Your task to perform on an android device: turn on translation in the chrome app Image 0: 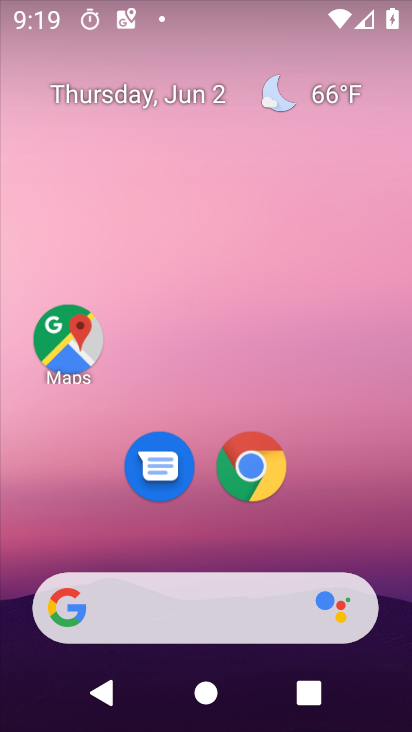
Step 0: click (226, 469)
Your task to perform on an android device: turn on translation in the chrome app Image 1: 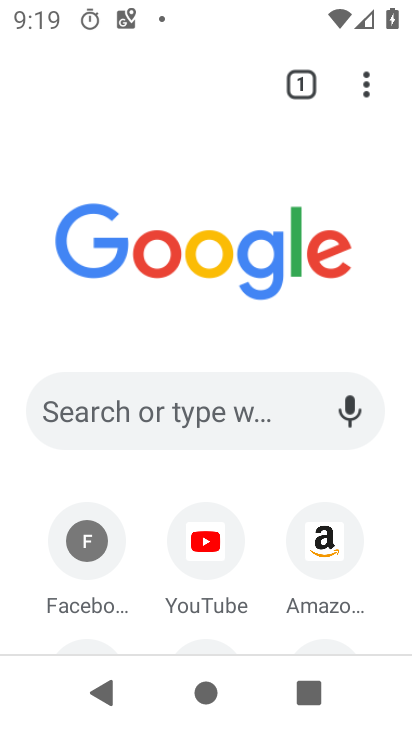
Step 1: click (368, 91)
Your task to perform on an android device: turn on translation in the chrome app Image 2: 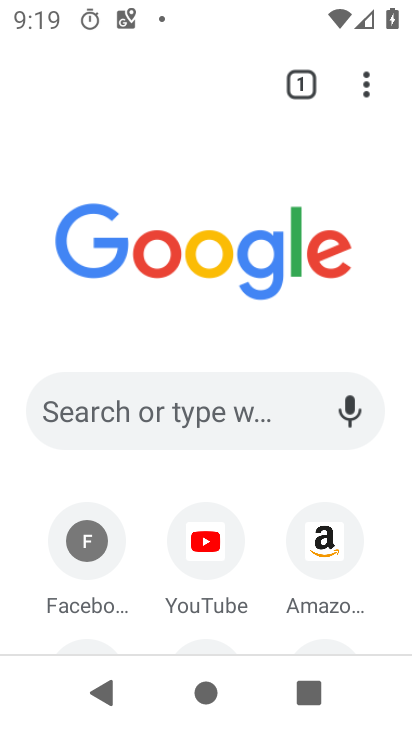
Step 2: click (373, 83)
Your task to perform on an android device: turn on translation in the chrome app Image 3: 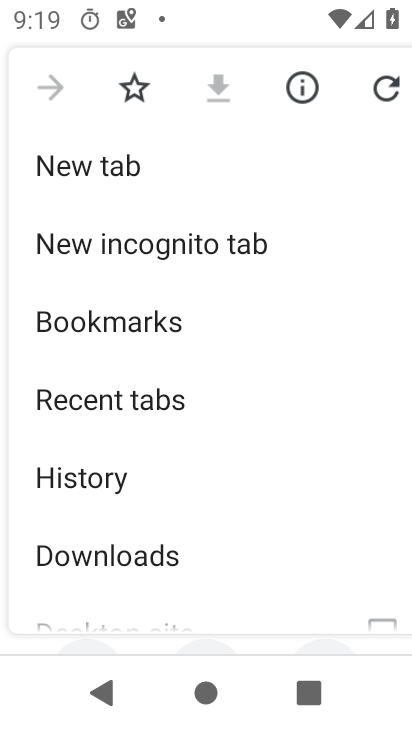
Step 3: drag from (10, 507) to (244, 137)
Your task to perform on an android device: turn on translation in the chrome app Image 4: 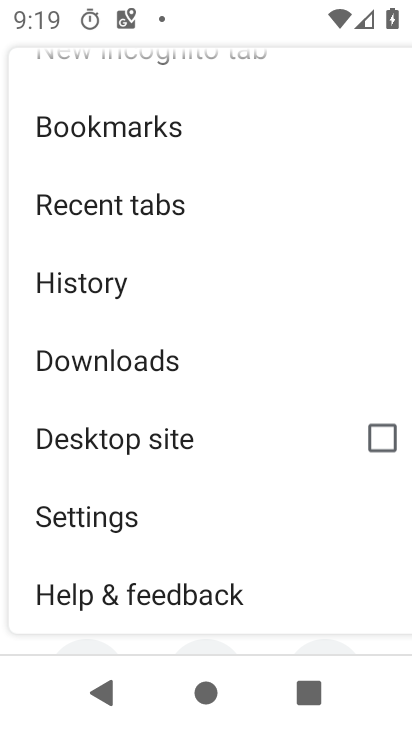
Step 4: click (72, 516)
Your task to perform on an android device: turn on translation in the chrome app Image 5: 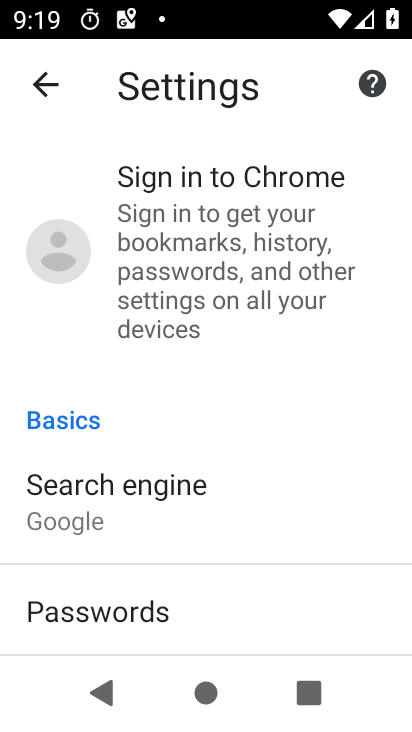
Step 5: drag from (13, 592) to (351, 144)
Your task to perform on an android device: turn on translation in the chrome app Image 6: 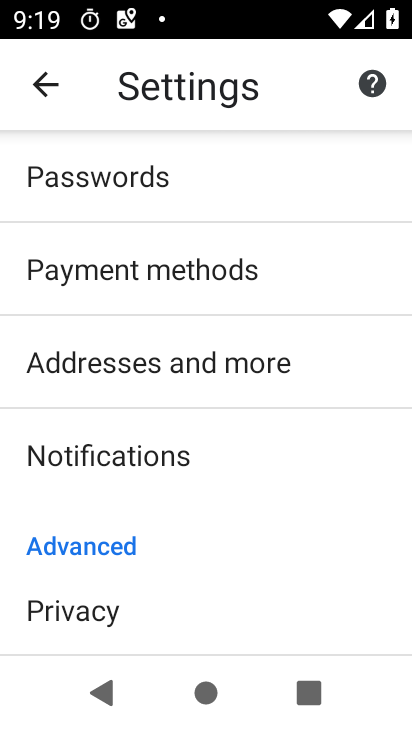
Step 6: drag from (20, 564) to (204, 239)
Your task to perform on an android device: turn on translation in the chrome app Image 7: 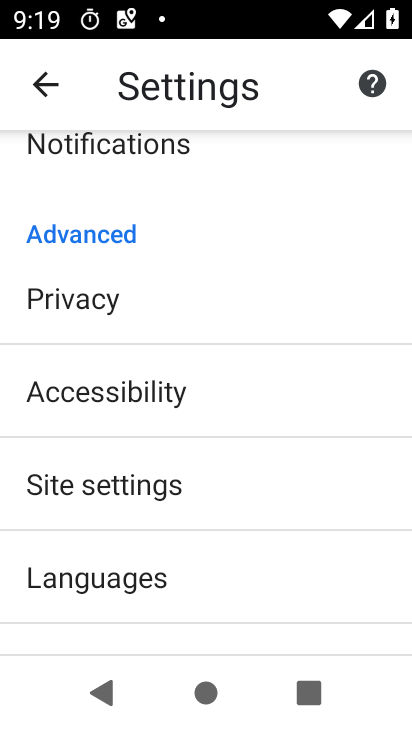
Step 7: click (103, 477)
Your task to perform on an android device: turn on translation in the chrome app Image 8: 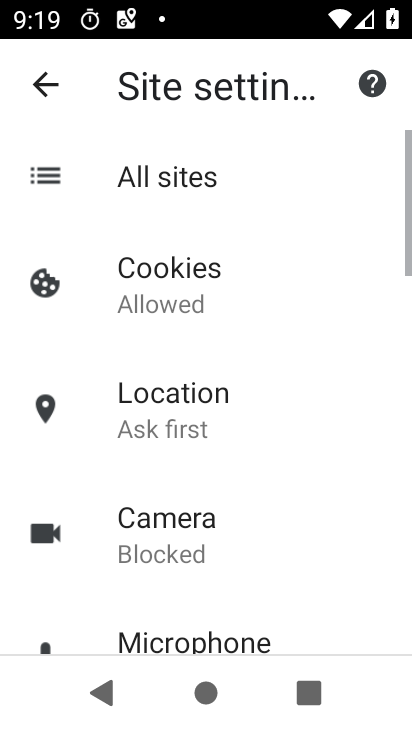
Step 8: drag from (32, 485) to (289, 168)
Your task to perform on an android device: turn on translation in the chrome app Image 9: 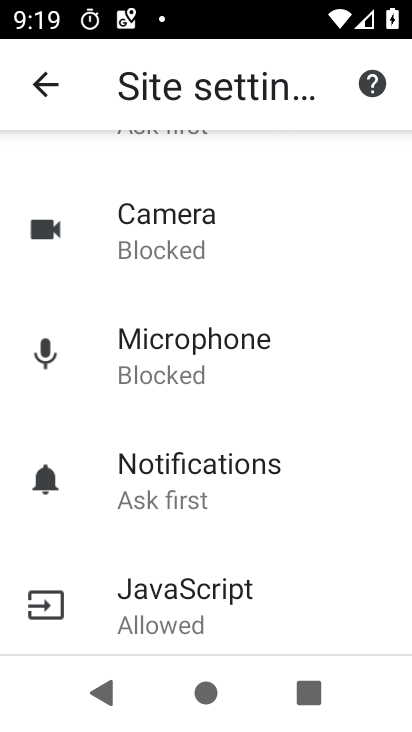
Step 9: drag from (33, 448) to (247, 145)
Your task to perform on an android device: turn on translation in the chrome app Image 10: 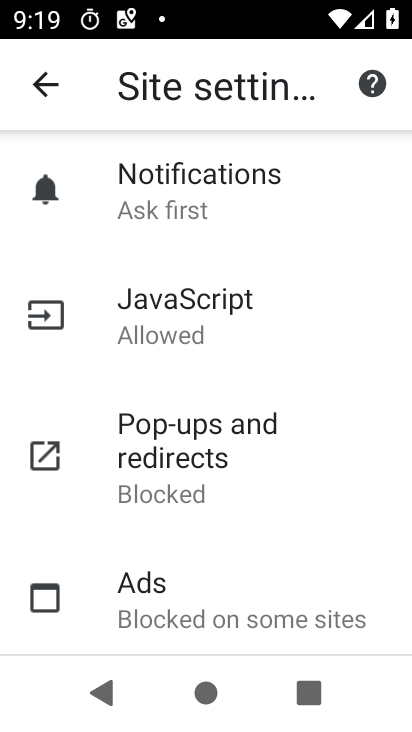
Step 10: drag from (19, 538) to (243, 209)
Your task to perform on an android device: turn on translation in the chrome app Image 11: 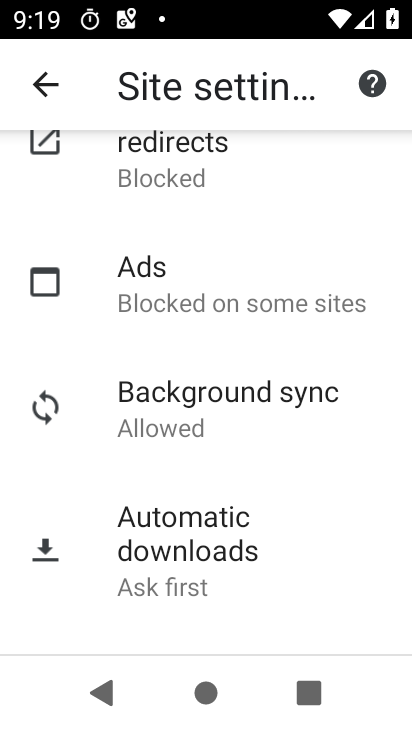
Step 11: drag from (61, 443) to (249, 150)
Your task to perform on an android device: turn on translation in the chrome app Image 12: 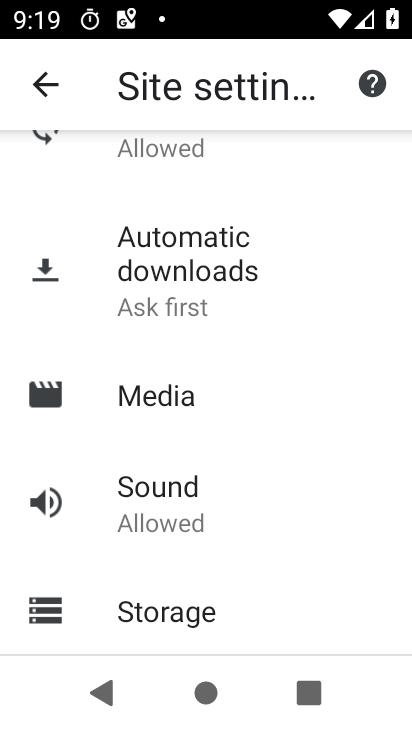
Step 12: drag from (45, 469) to (246, 212)
Your task to perform on an android device: turn on translation in the chrome app Image 13: 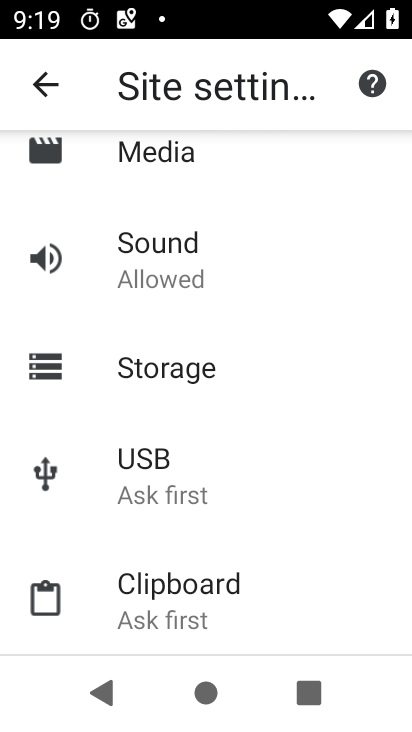
Step 13: drag from (52, 626) to (287, 289)
Your task to perform on an android device: turn on translation in the chrome app Image 14: 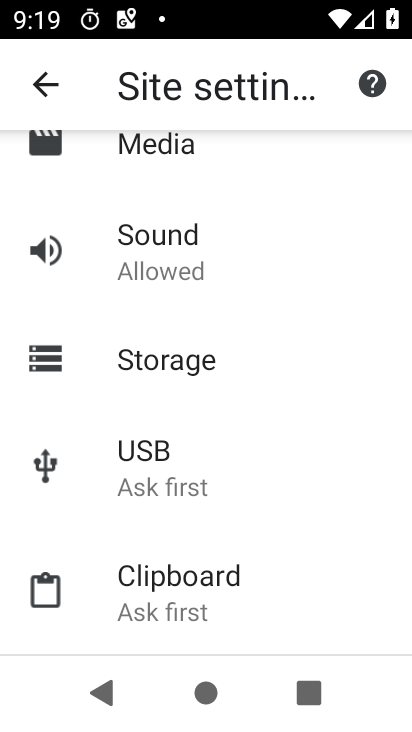
Step 14: click (119, 692)
Your task to perform on an android device: turn on translation in the chrome app Image 15: 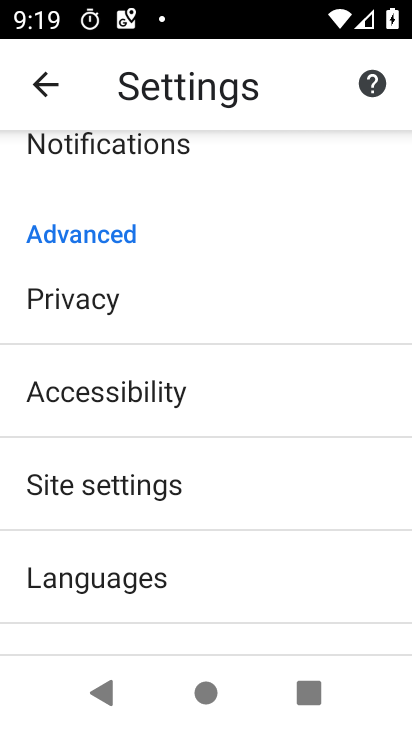
Step 15: drag from (14, 531) to (163, 277)
Your task to perform on an android device: turn on translation in the chrome app Image 16: 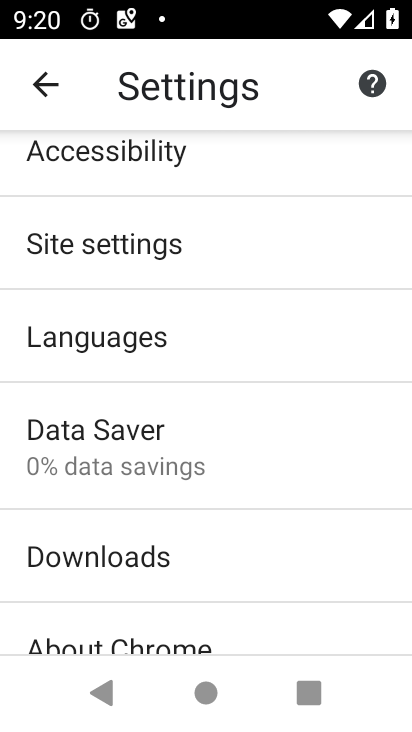
Step 16: click (117, 322)
Your task to perform on an android device: turn on translation in the chrome app Image 17: 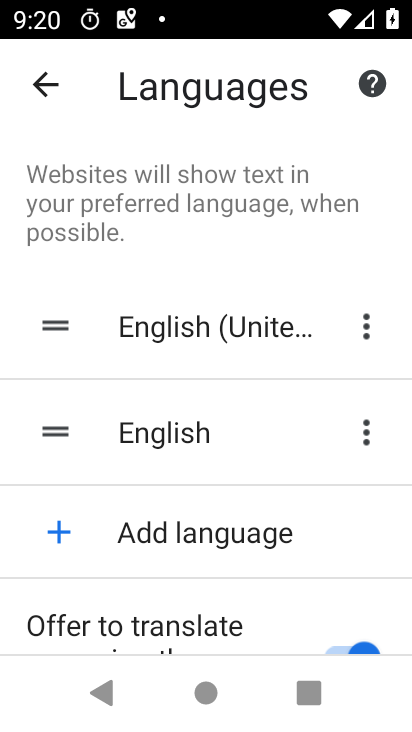
Step 17: task complete